Your task to perform on an android device: Is it going to rain today? Image 0: 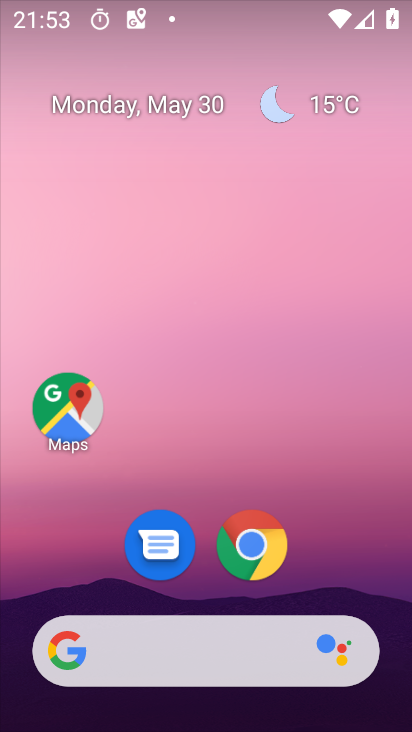
Step 0: click (337, 98)
Your task to perform on an android device: Is it going to rain today? Image 1: 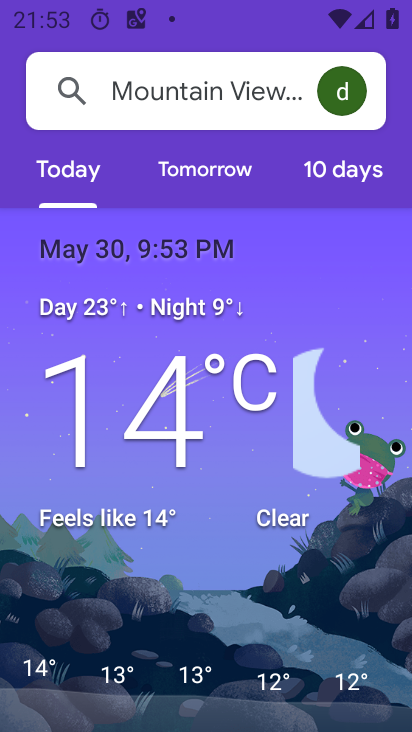
Step 1: click (200, 176)
Your task to perform on an android device: Is it going to rain today? Image 2: 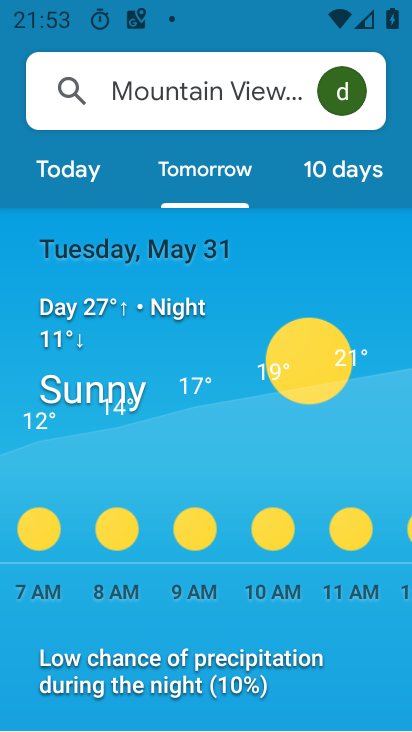
Step 2: click (60, 161)
Your task to perform on an android device: Is it going to rain today? Image 3: 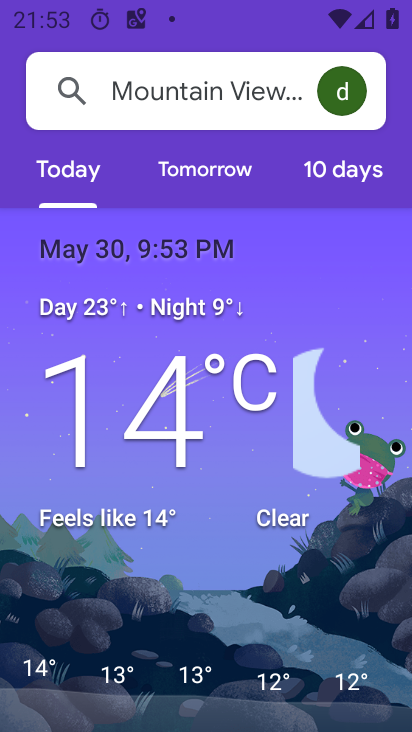
Step 3: task complete